Your task to perform on an android device: Check the weather Image 0: 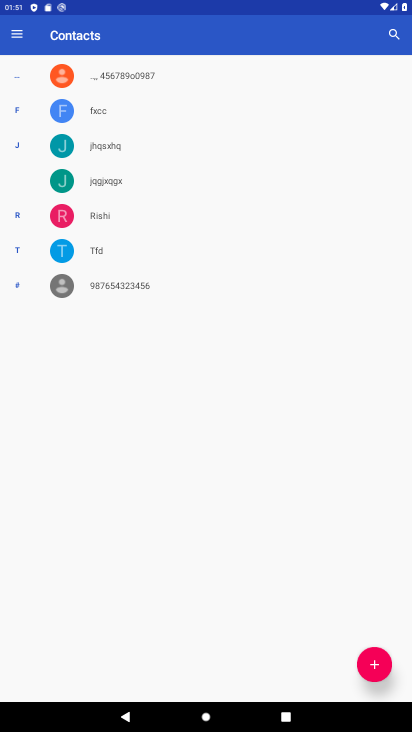
Step 0: press home button
Your task to perform on an android device: Check the weather Image 1: 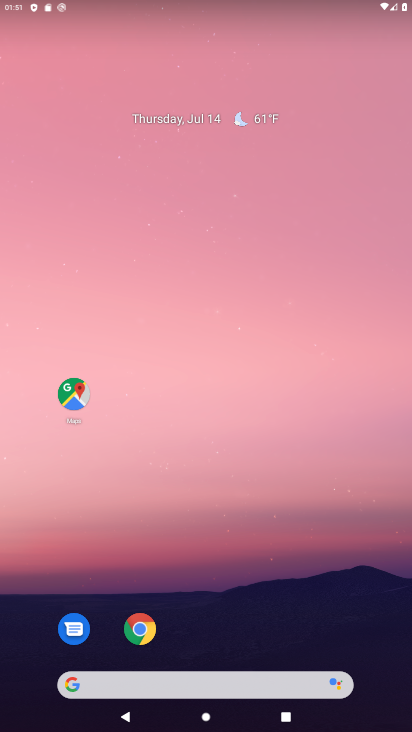
Step 1: click (260, 119)
Your task to perform on an android device: Check the weather Image 2: 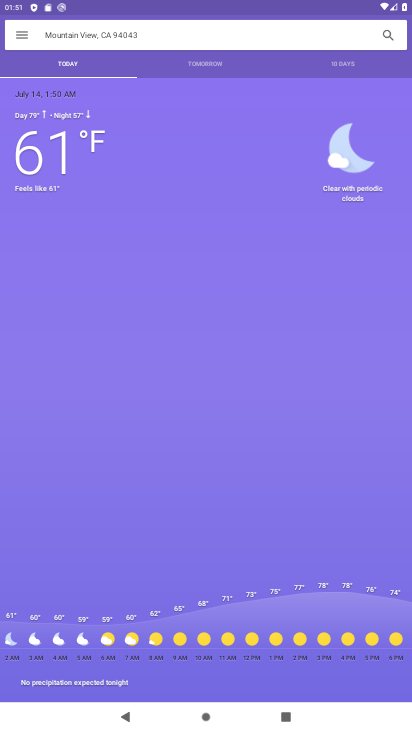
Step 2: task complete